Your task to perform on an android device: toggle sleep mode Image 0: 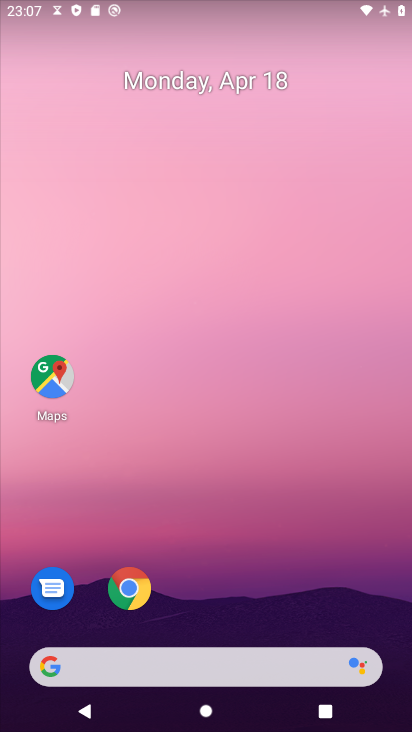
Step 0: drag from (274, 542) to (131, 0)
Your task to perform on an android device: toggle sleep mode Image 1: 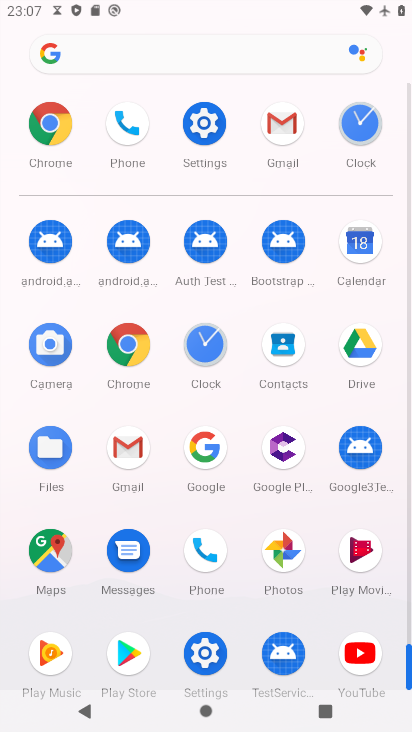
Step 1: drag from (10, 480) to (1, 233)
Your task to perform on an android device: toggle sleep mode Image 2: 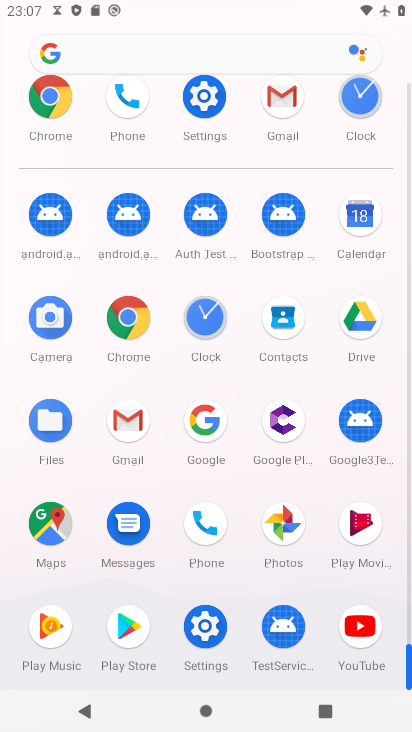
Step 2: click (198, 102)
Your task to perform on an android device: toggle sleep mode Image 3: 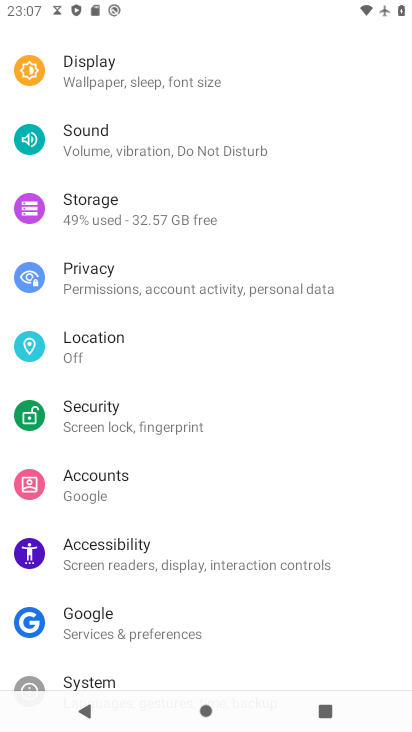
Step 3: drag from (193, 276) to (151, 505)
Your task to perform on an android device: toggle sleep mode Image 4: 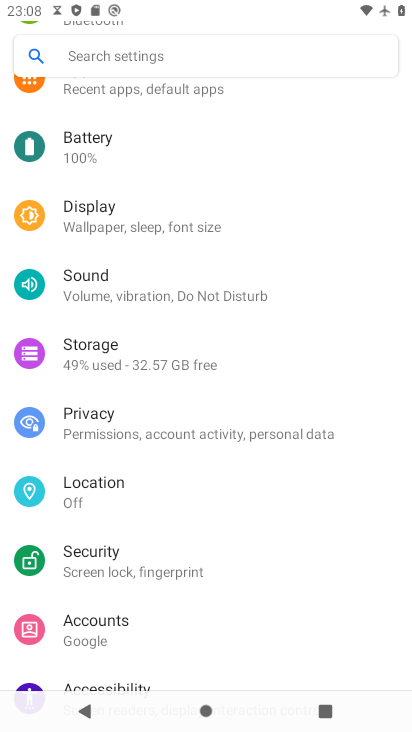
Step 4: drag from (198, 266) to (173, 534)
Your task to perform on an android device: toggle sleep mode Image 5: 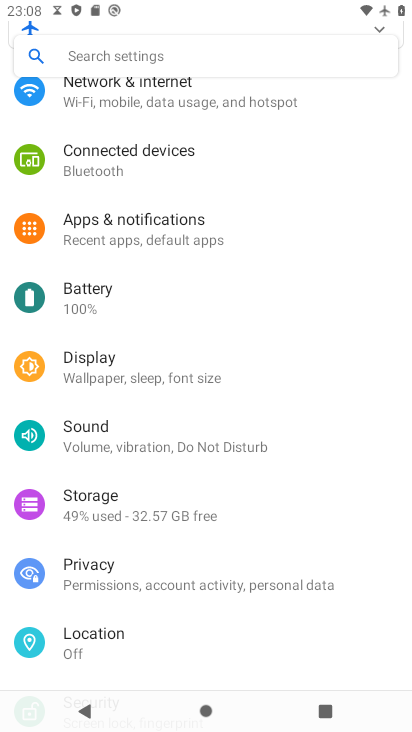
Step 5: click (156, 375)
Your task to perform on an android device: toggle sleep mode Image 6: 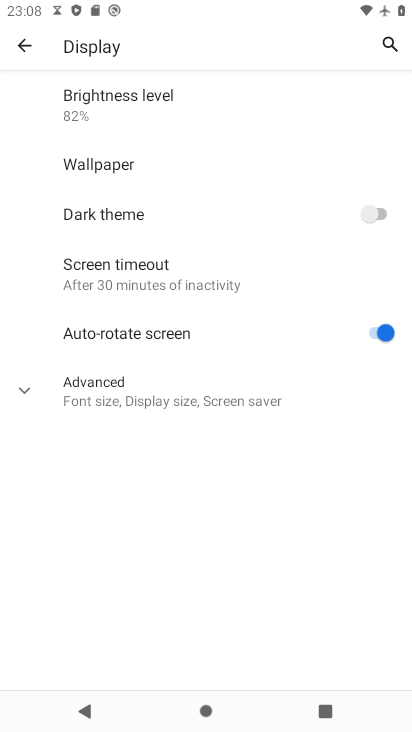
Step 6: click (26, 395)
Your task to perform on an android device: toggle sleep mode Image 7: 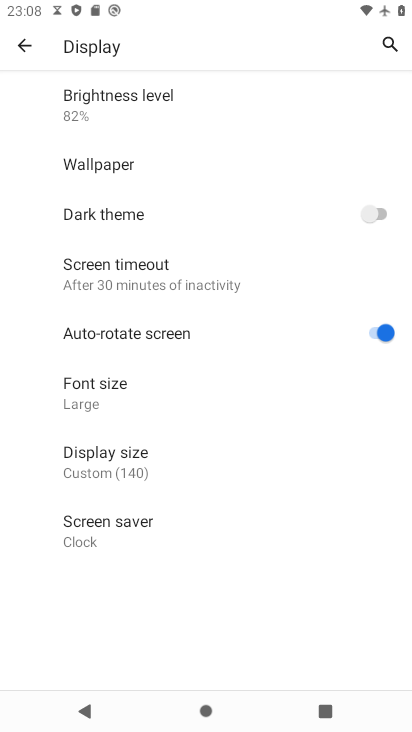
Step 7: task complete